Your task to perform on an android device: open sync settings in chrome Image 0: 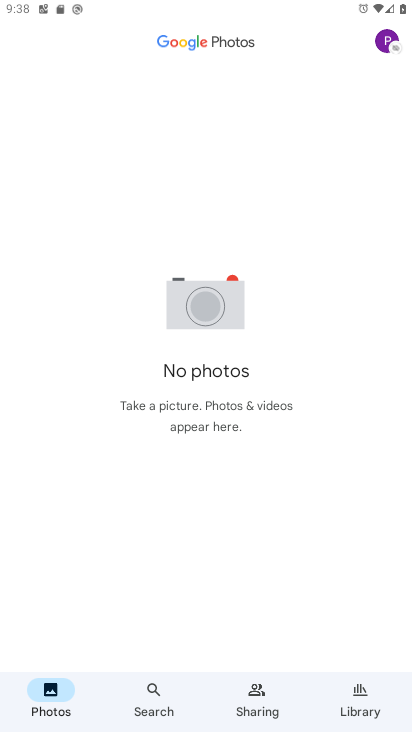
Step 0: press home button
Your task to perform on an android device: open sync settings in chrome Image 1: 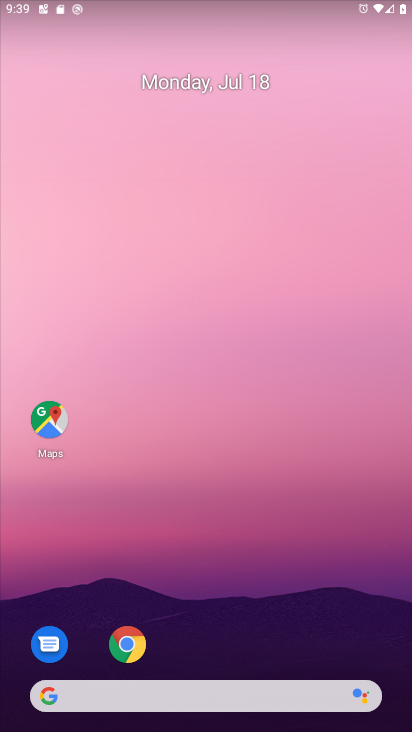
Step 1: click (129, 648)
Your task to perform on an android device: open sync settings in chrome Image 2: 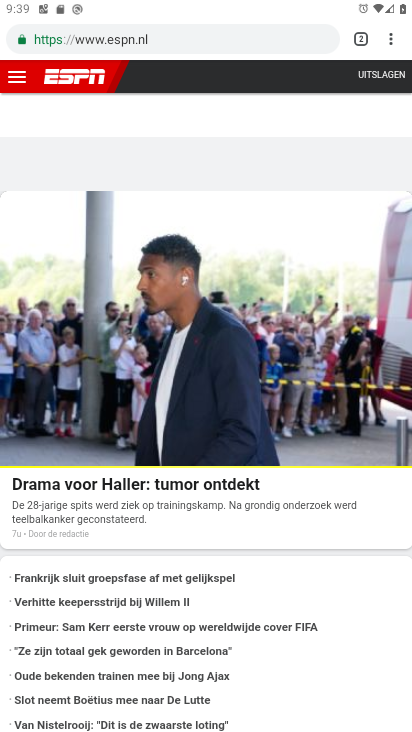
Step 2: click (400, 34)
Your task to perform on an android device: open sync settings in chrome Image 3: 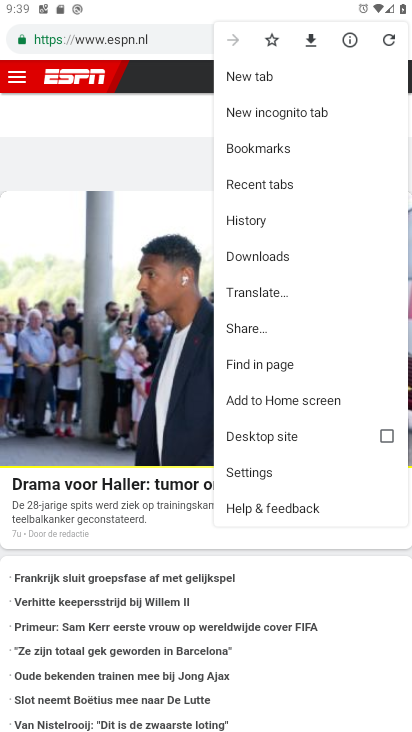
Step 3: click (254, 470)
Your task to perform on an android device: open sync settings in chrome Image 4: 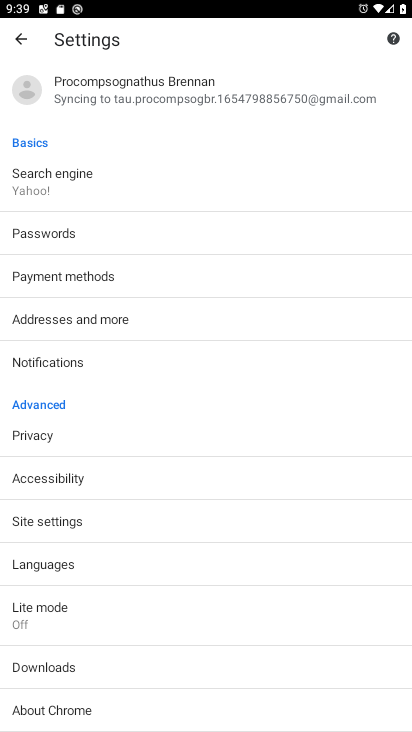
Step 4: click (108, 97)
Your task to perform on an android device: open sync settings in chrome Image 5: 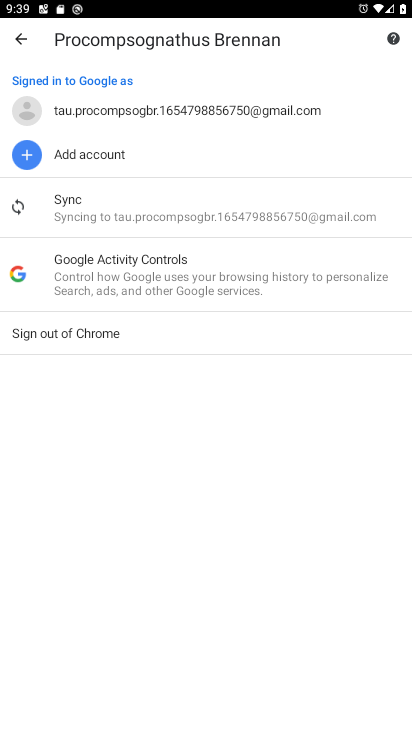
Step 5: task complete